Your task to perform on an android device: snooze an email in the gmail app Image 0: 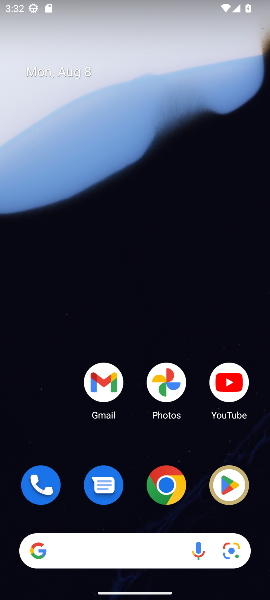
Step 0: drag from (126, 522) to (103, 224)
Your task to perform on an android device: snooze an email in the gmail app Image 1: 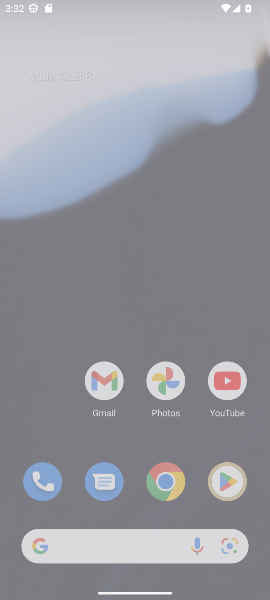
Step 1: drag from (155, 560) to (155, 212)
Your task to perform on an android device: snooze an email in the gmail app Image 2: 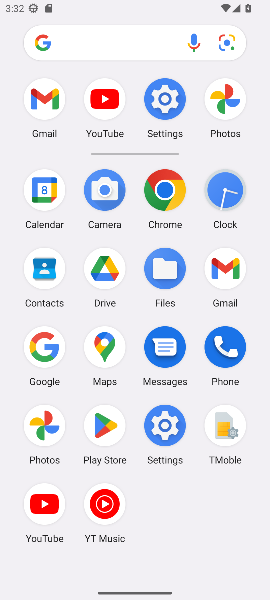
Step 2: click (214, 263)
Your task to perform on an android device: snooze an email in the gmail app Image 3: 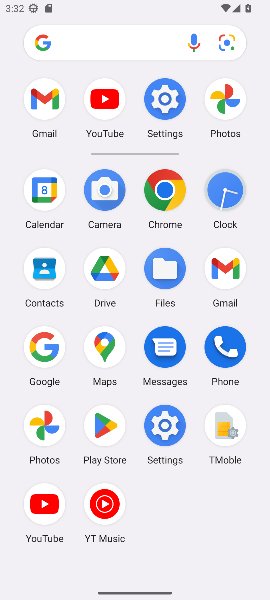
Step 3: click (214, 263)
Your task to perform on an android device: snooze an email in the gmail app Image 4: 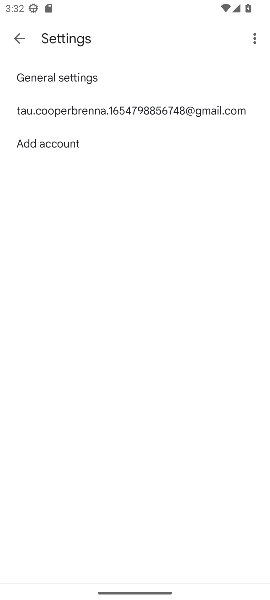
Step 4: click (222, 267)
Your task to perform on an android device: snooze an email in the gmail app Image 5: 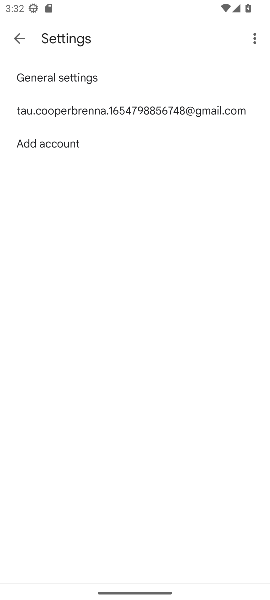
Step 5: click (222, 267)
Your task to perform on an android device: snooze an email in the gmail app Image 6: 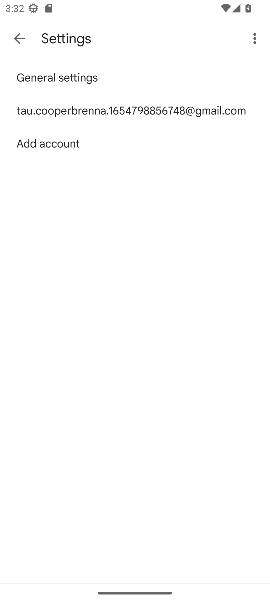
Step 6: click (76, 116)
Your task to perform on an android device: snooze an email in the gmail app Image 7: 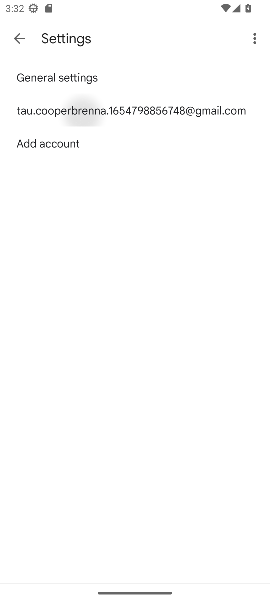
Step 7: click (65, 106)
Your task to perform on an android device: snooze an email in the gmail app Image 8: 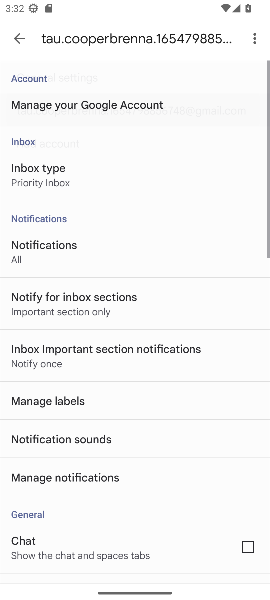
Step 8: click (65, 106)
Your task to perform on an android device: snooze an email in the gmail app Image 9: 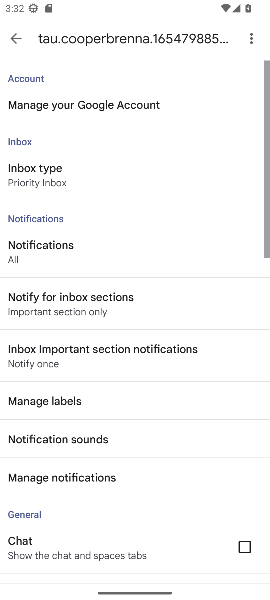
Step 9: click (14, 32)
Your task to perform on an android device: snooze an email in the gmail app Image 10: 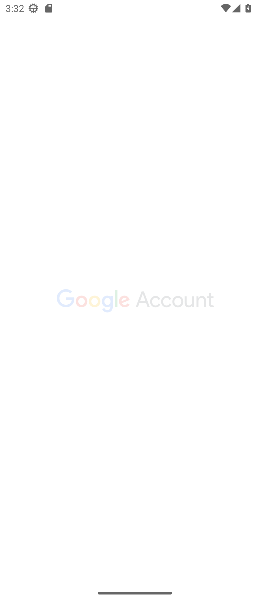
Step 10: click (16, 33)
Your task to perform on an android device: snooze an email in the gmail app Image 11: 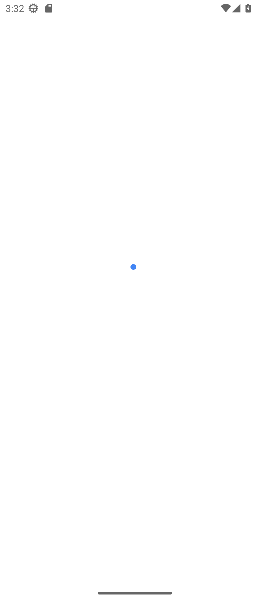
Step 11: press back button
Your task to perform on an android device: snooze an email in the gmail app Image 12: 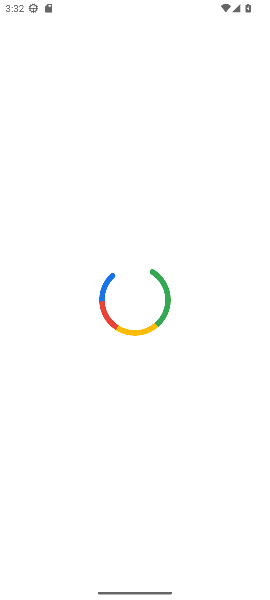
Step 12: press back button
Your task to perform on an android device: snooze an email in the gmail app Image 13: 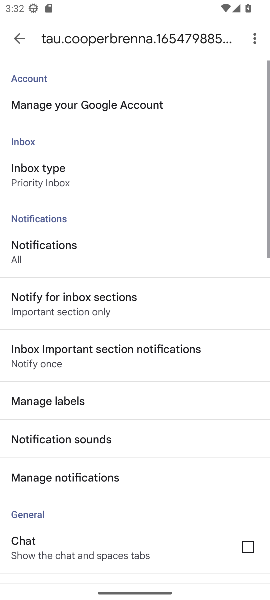
Step 13: press back button
Your task to perform on an android device: snooze an email in the gmail app Image 14: 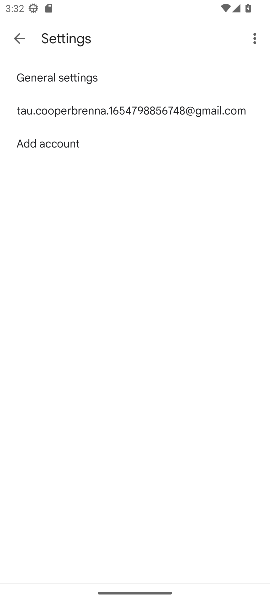
Step 14: press back button
Your task to perform on an android device: snooze an email in the gmail app Image 15: 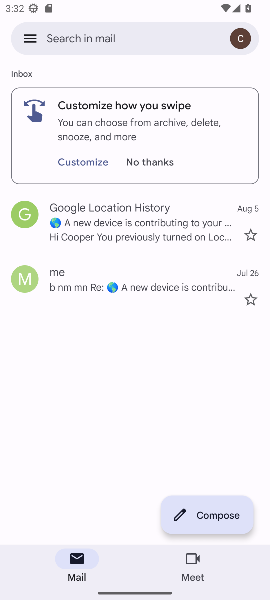
Step 15: click (102, 235)
Your task to perform on an android device: snooze an email in the gmail app Image 16: 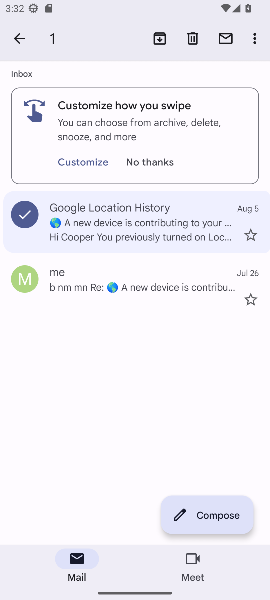
Step 16: click (254, 35)
Your task to perform on an android device: snooze an email in the gmail app Image 17: 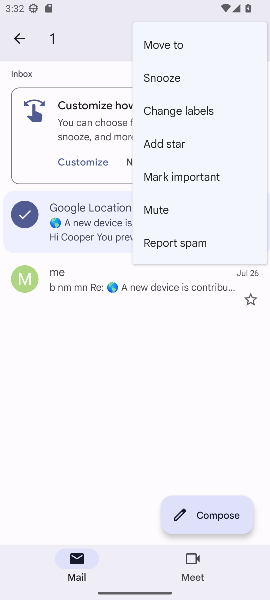
Step 17: click (158, 82)
Your task to perform on an android device: snooze an email in the gmail app Image 18: 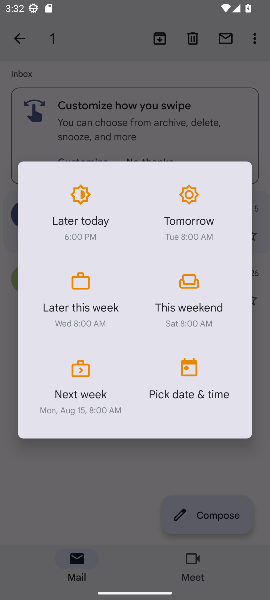
Step 18: task complete